Your task to perform on an android device: turn off sleep mode Image 0: 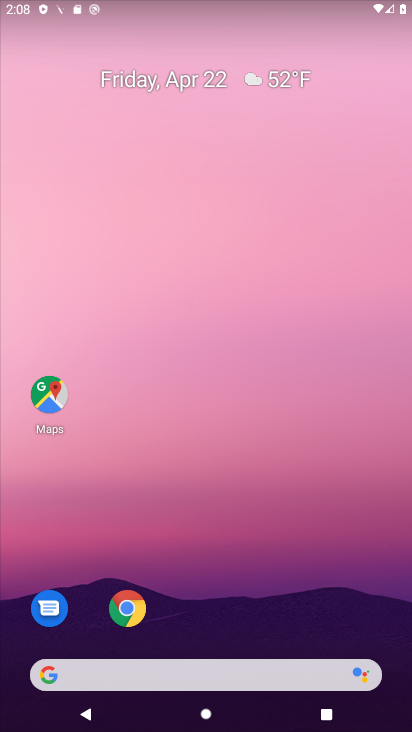
Step 0: drag from (302, 559) to (299, 193)
Your task to perform on an android device: turn off sleep mode Image 1: 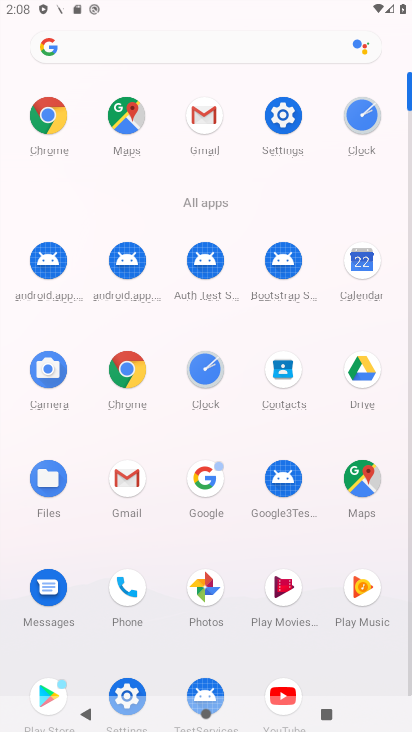
Step 1: click (282, 116)
Your task to perform on an android device: turn off sleep mode Image 2: 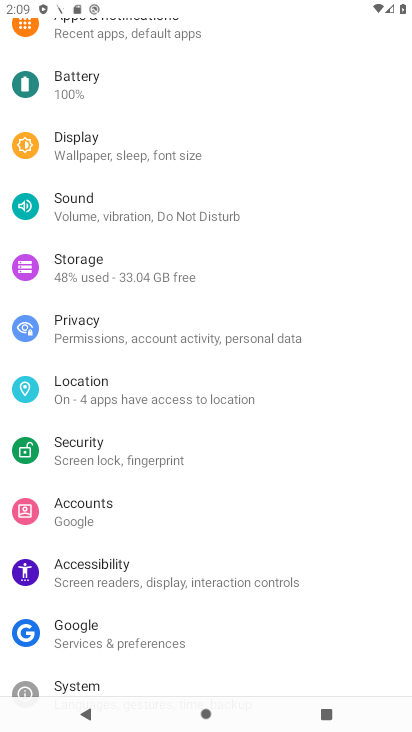
Step 2: click (180, 147)
Your task to perform on an android device: turn off sleep mode Image 3: 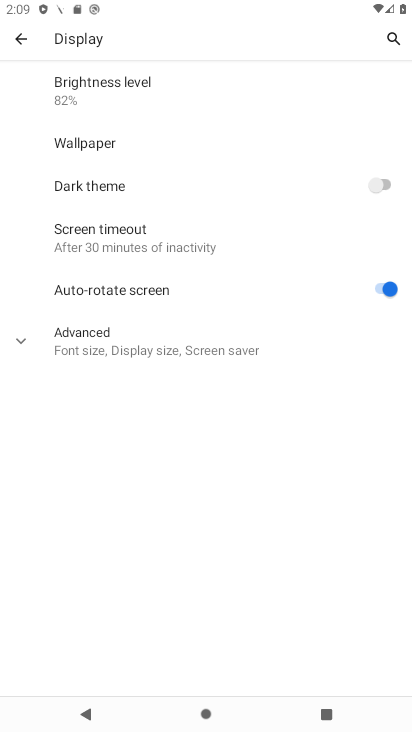
Step 3: click (103, 337)
Your task to perform on an android device: turn off sleep mode Image 4: 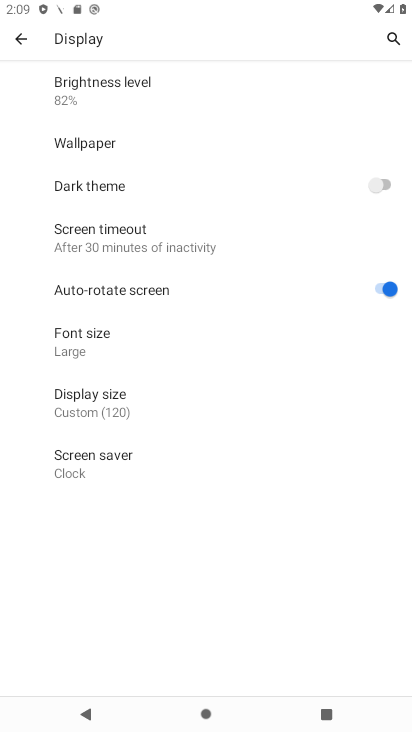
Step 4: task complete